Your task to perform on an android device: turn off wifi Image 0: 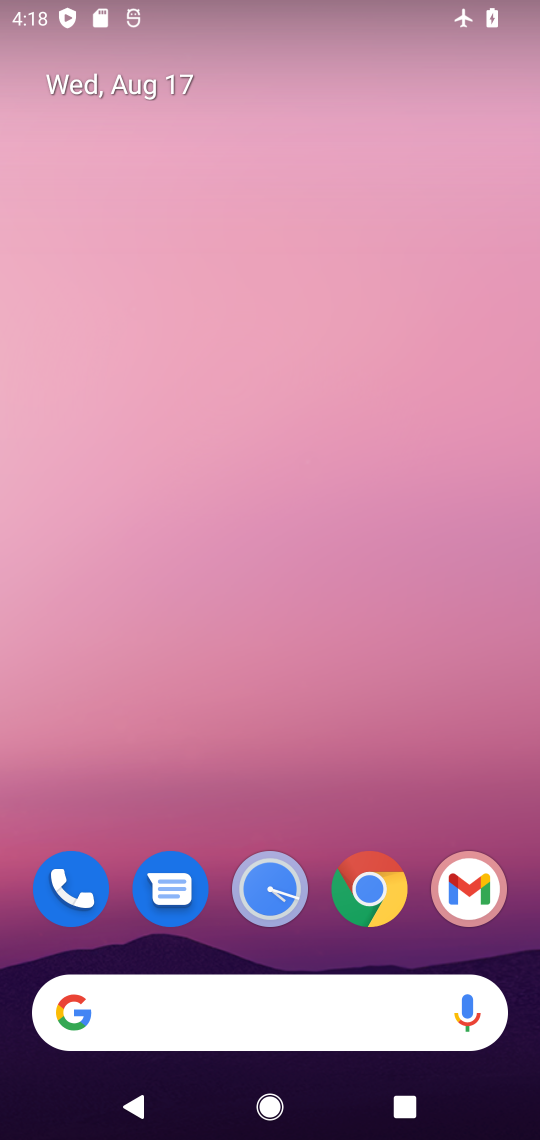
Step 0: drag from (328, 809) to (279, 183)
Your task to perform on an android device: turn off wifi Image 1: 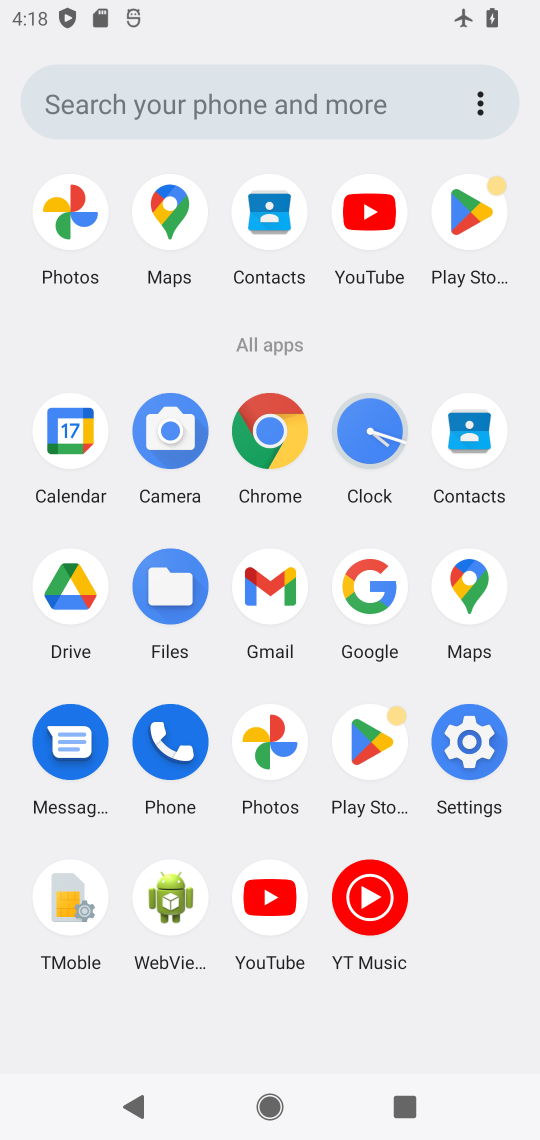
Step 1: click (473, 746)
Your task to perform on an android device: turn off wifi Image 2: 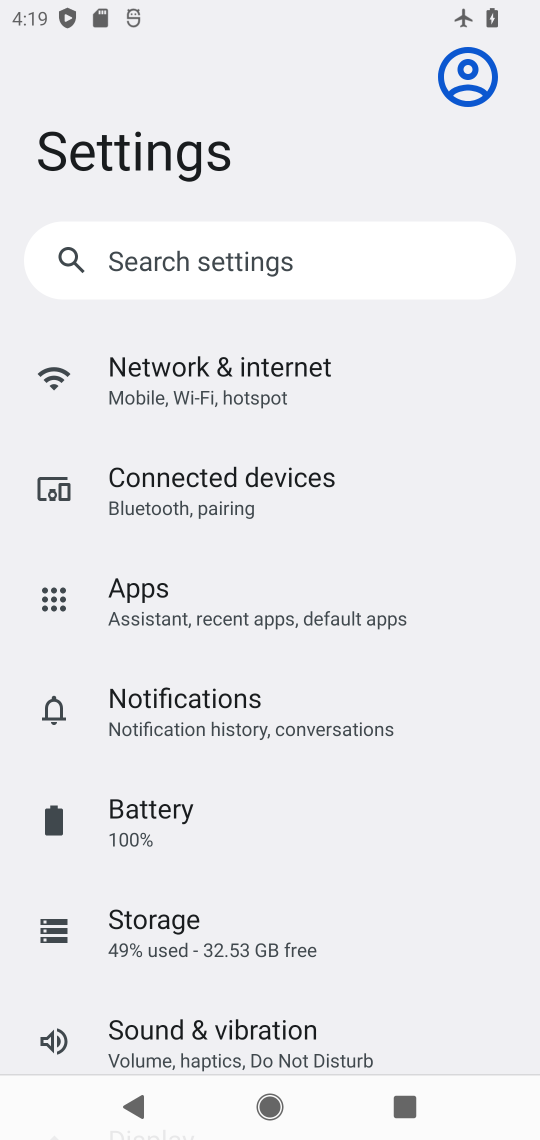
Step 2: click (220, 358)
Your task to perform on an android device: turn off wifi Image 3: 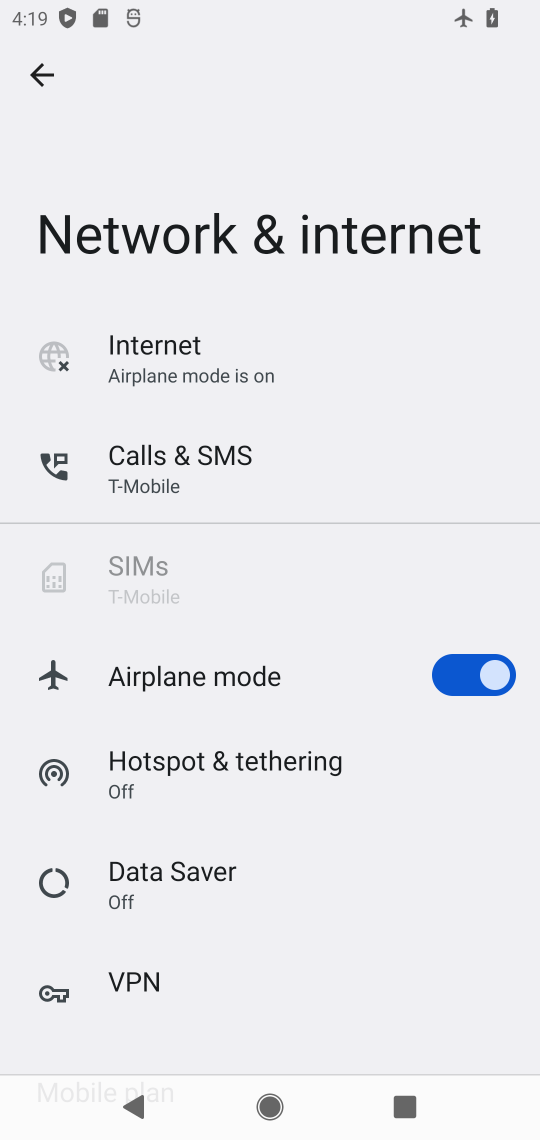
Step 3: click (173, 345)
Your task to perform on an android device: turn off wifi Image 4: 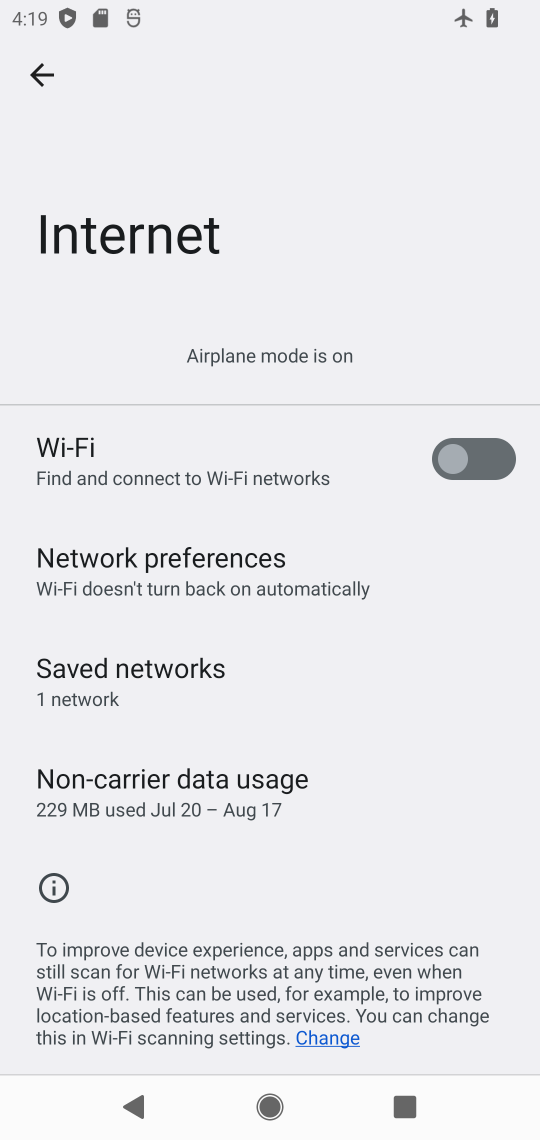
Step 4: task complete